Your task to perform on an android device: Is it going to rain this weekend? Image 0: 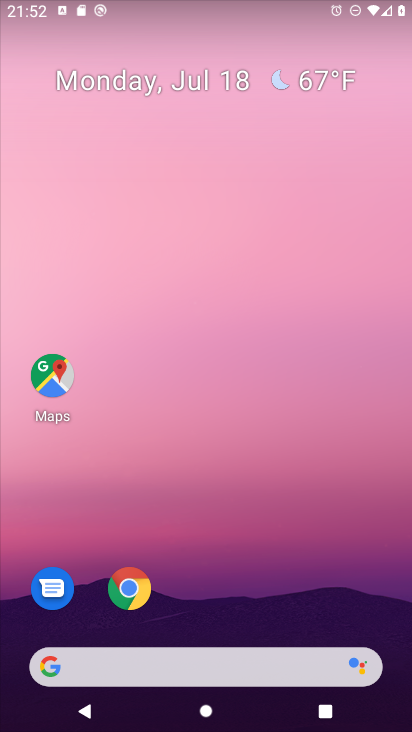
Step 0: drag from (5, 285) to (407, 291)
Your task to perform on an android device: Is it going to rain this weekend? Image 1: 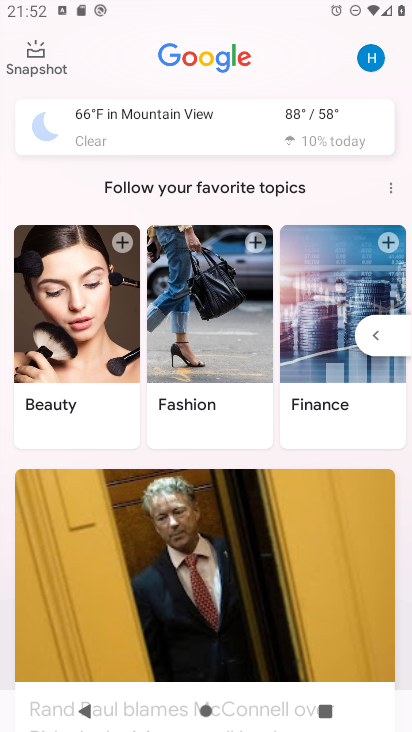
Step 1: click (222, 118)
Your task to perform on an android device: Is it going to rain this weekend? Image 2: 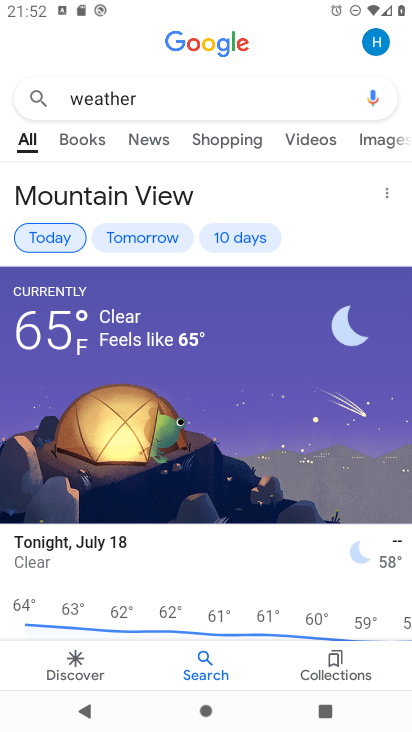
Step 2: click (237, 231)
Your task to perform on an android device: Is it going to rain this weekend? Image 3: 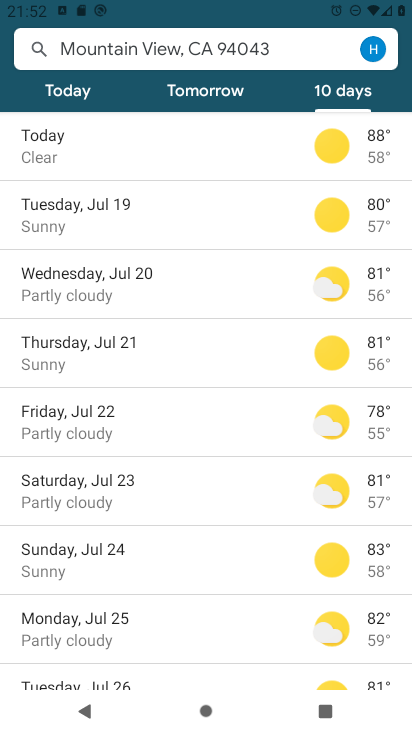
Step 3: task complete